Your task to perform on an android device: toggle wifi Image 0: 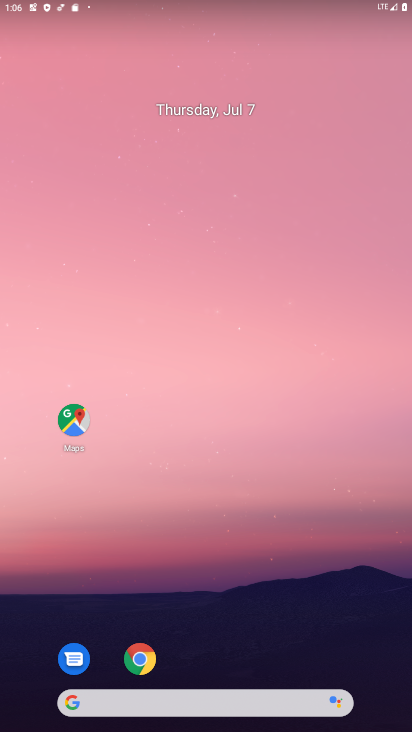
Step 0: drag from (256, 598) to (228, 210)
Your task to perform on an android device: toggle wifi Image 1: 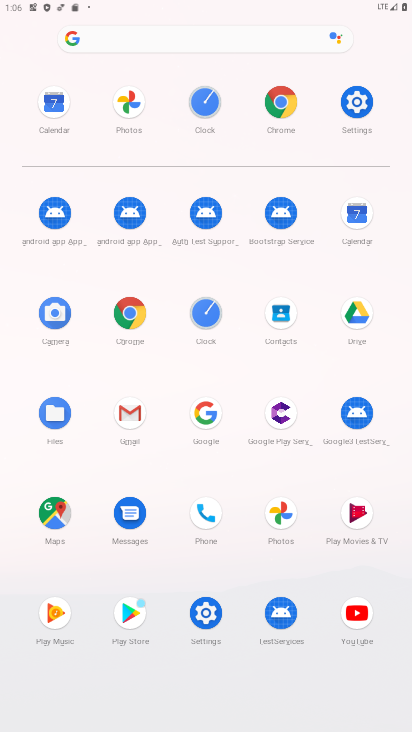
Step 1: click (354, 117)
Your task to perform on an android device: toggle wifi Image 2: 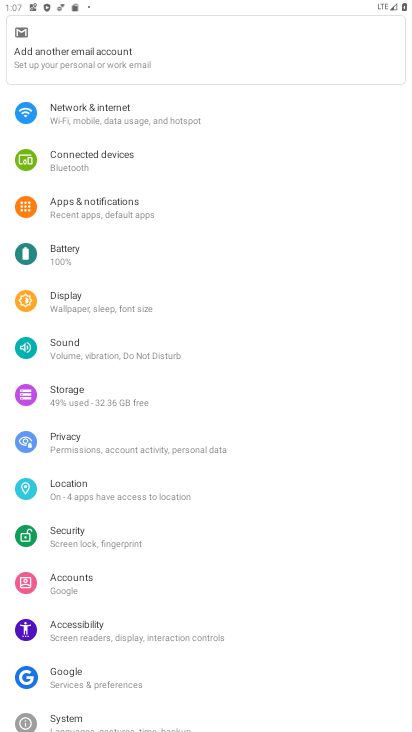
Step 2: click (90, 110)
Your task to perform on an android device: toggle wifi Image 3: 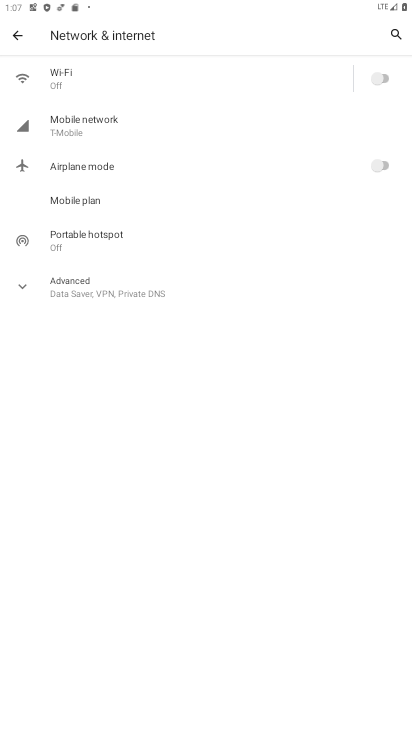
Step 3: click (381, 75)
Your task to perform on an android device: toggle wifi Image 4: 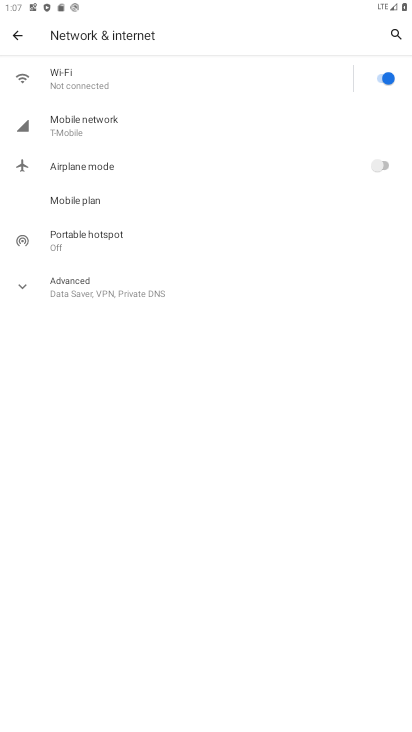
Step 4: task complete